Your task to perform on an android device: search for starred emails in the gmail app Image 0: 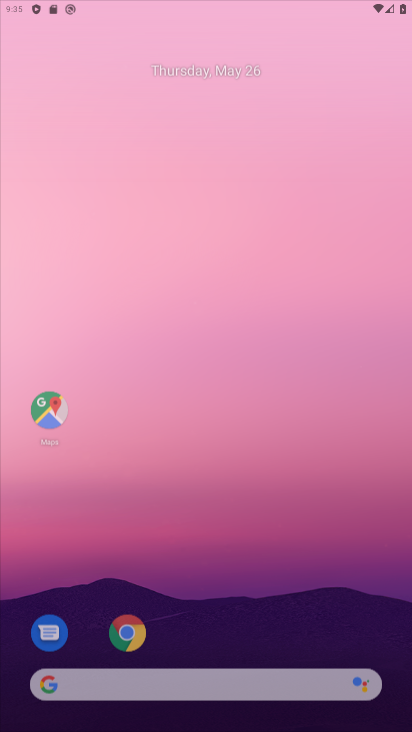
Step 0: press back button
Your task to perform on an android device: search for starred emails in the gmail app Image 1: 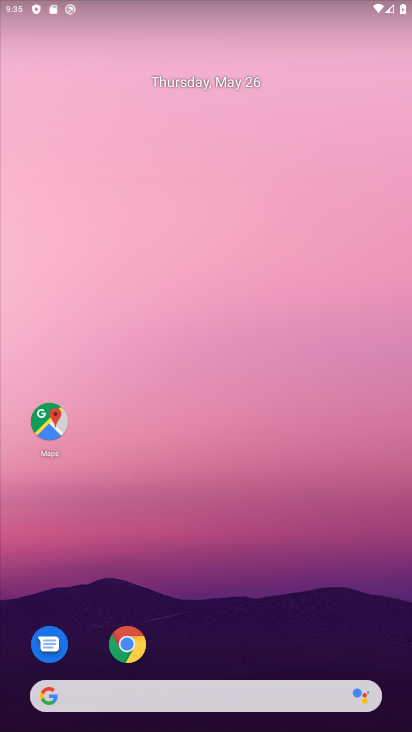
Step 1: drag from (270, 711) to (150, 206)
Your task to perform on an android device: search for starred emails in the gmail app Image 2: 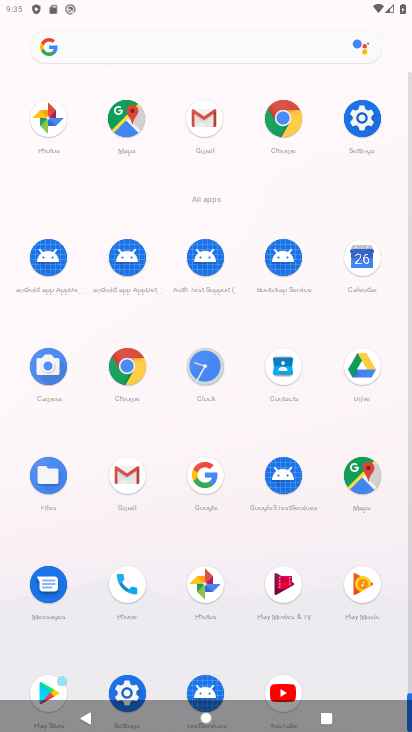
Step 2: click (130, 472)
Your task to perform on an android device: search for starred emails in the gmail app Image 3: 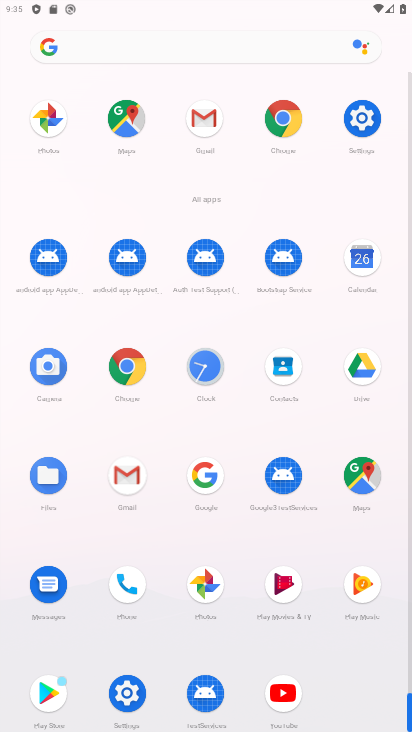
Step 3: click (130, 472)
Your task to perform on an android device: search for starred emails in the gmail app Image 4: 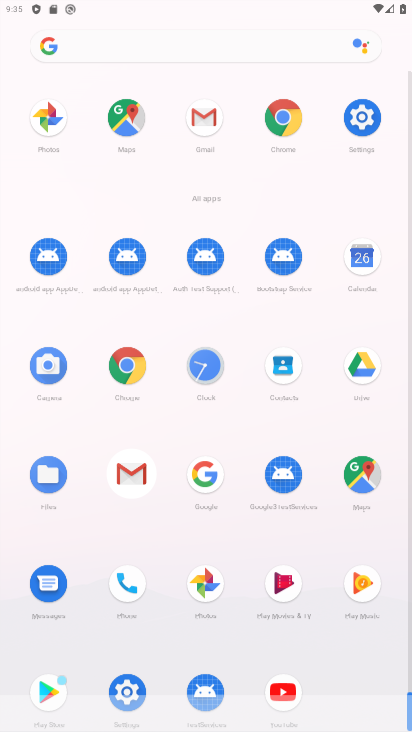
Step 4: click (130, 472)
Your task to perform on an android device: search for starred emails in the gmail app Image 5: 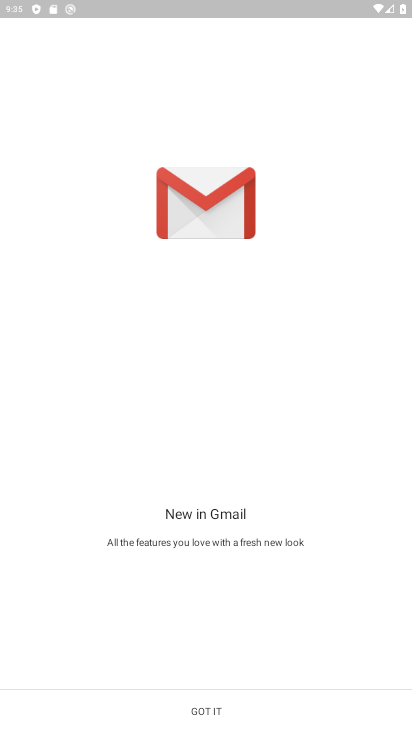
Step 5: click (209, 706)
Your task to perform on an android device: search for starred emails in the gmail app Image 6: 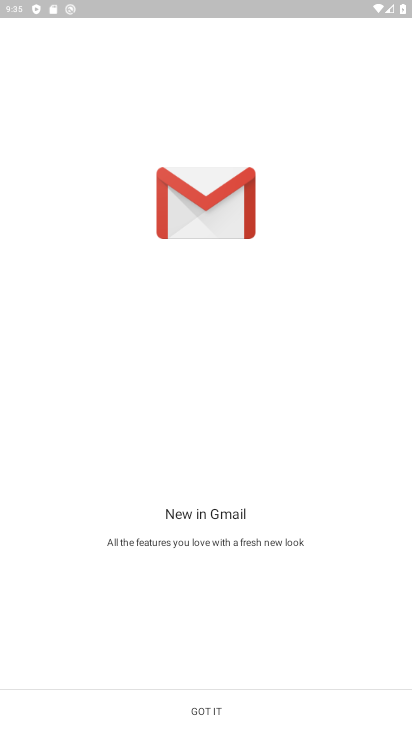
Step 6: click (212, 704)
Your task to perform on an android device: search for starred emails in the gmail app Image 7: 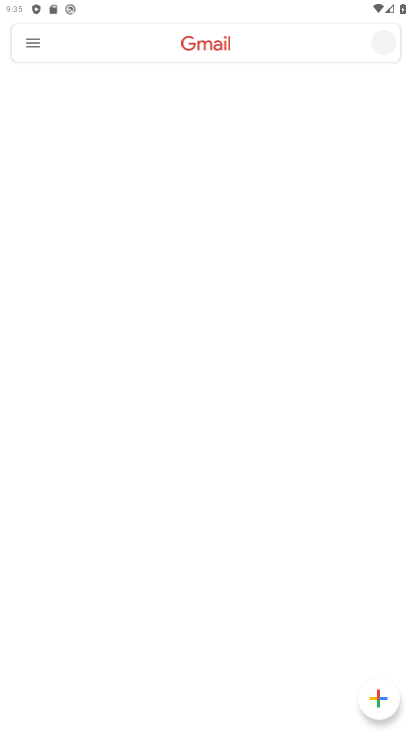
Step 7: click (213, 708)
Your task to perform on an android device: search for starred emails in the gmail app Image 8: 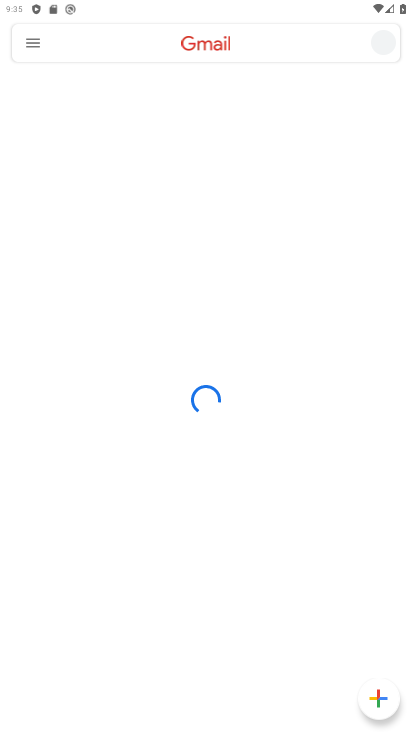
Step 8: drag from (244, 333) to (227, 11)
Your task to perform on an android device: search for starred emails in the gmail app Image 9: 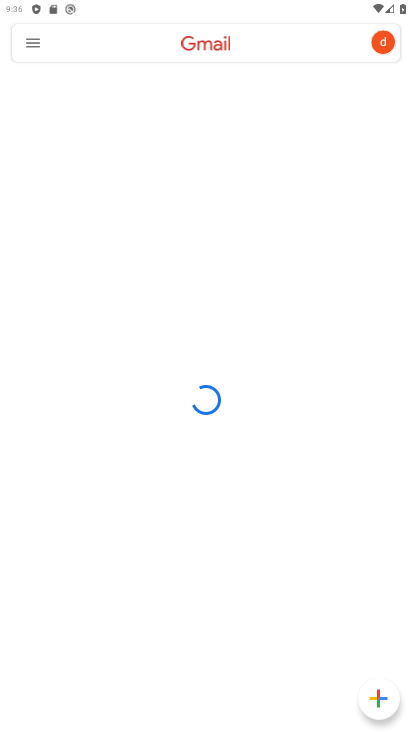
Step 9: click (233, 702)
Your task to perform on an android device: search for starred emails in the gmail app Image 10: 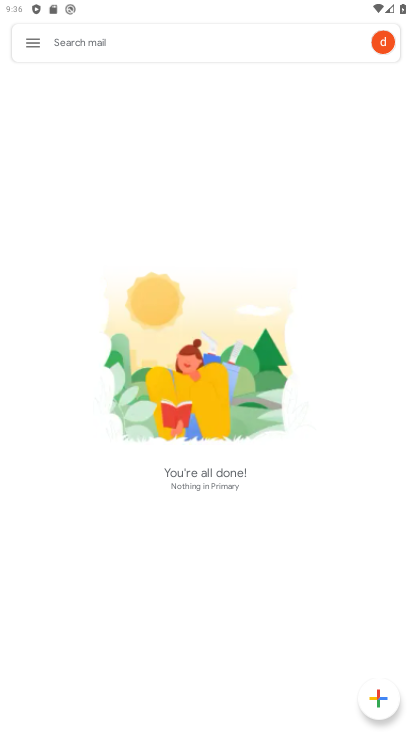
Step 10: press home button
Your task to perform on an android device: search for starred emails in the gmail app Image 11: 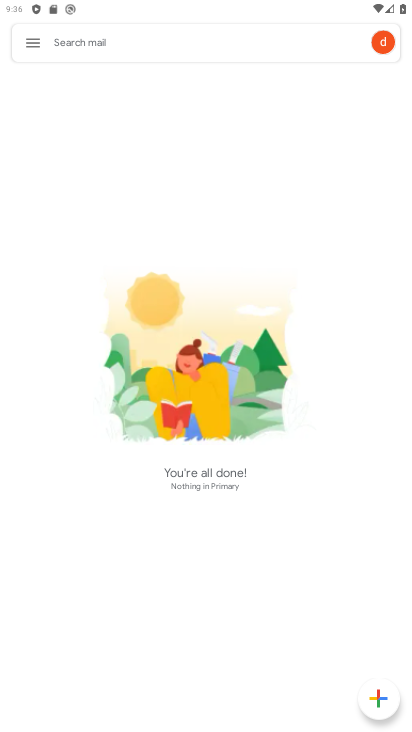
Step 11: press home button
Your task to perform on an android device: search for starred emails in the gmail app Image 12: 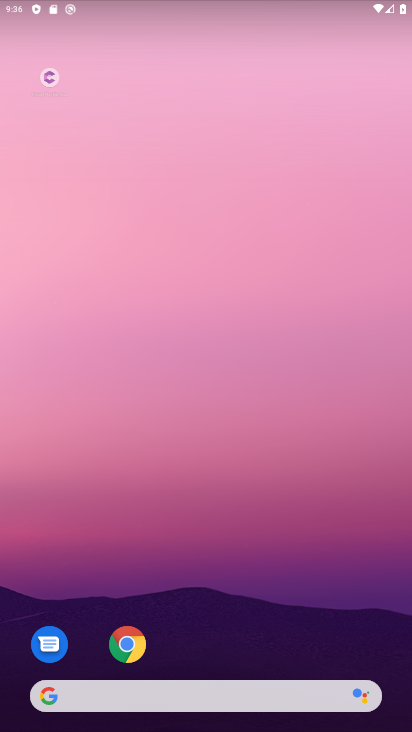
Step 12: press home button
Your task to perform on an android device: search for starred emails in the gmail app Image 13: 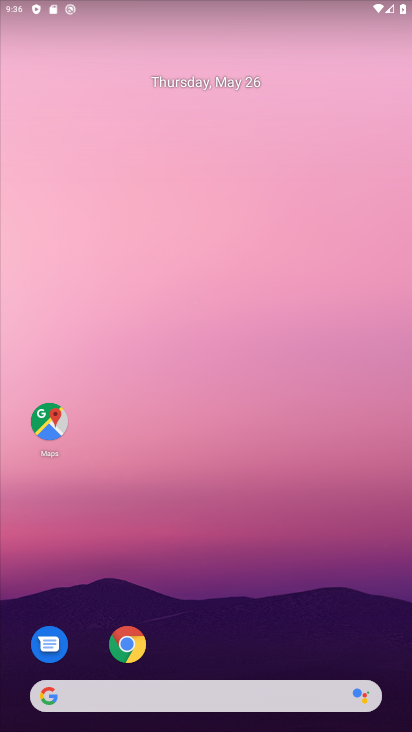
Step 13: drag from (233, 716) to (92, 115)
Your task to perform on an android device: search for starred emails in the gmail app Image 14: 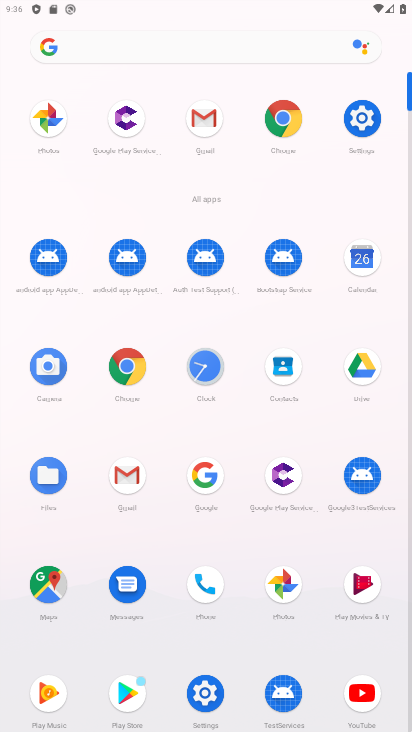
Step 14: click (148, 474)
Your task to perform on an android device: search for starred emails in the gmail app Image 15: 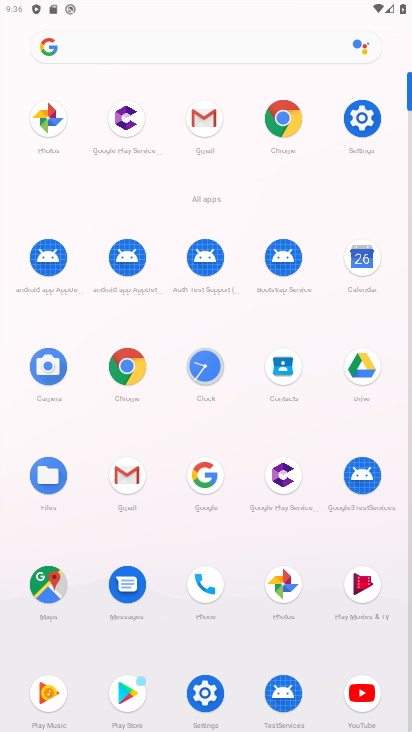
Step 15: click (134, 470)
Your task to perform on an android device: search for starred emails in the gmail app Image 16: 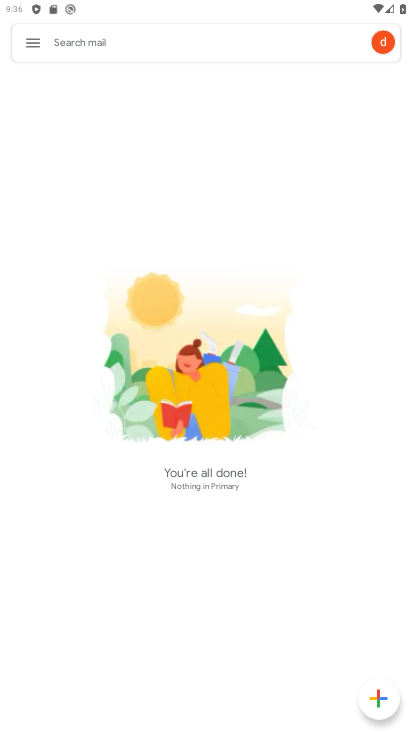
Step 16: click (129, 476)
Your task to perform on an android device: search for starred emails in the gmail app Image 17: 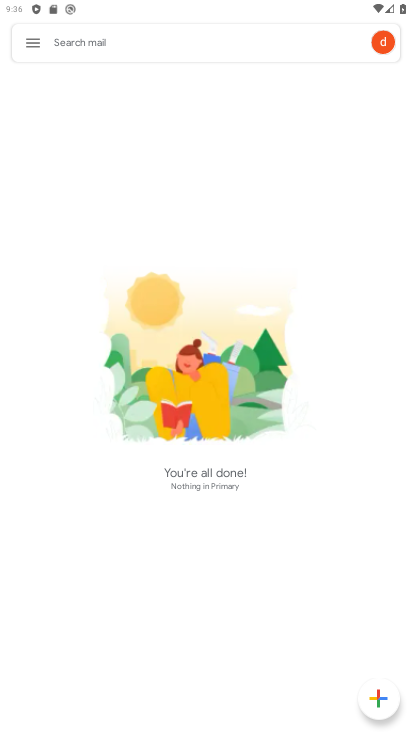
Step 17: click (129, 476)
Your task to perform on an android device: search for starred emails in the gmail app Image 18: 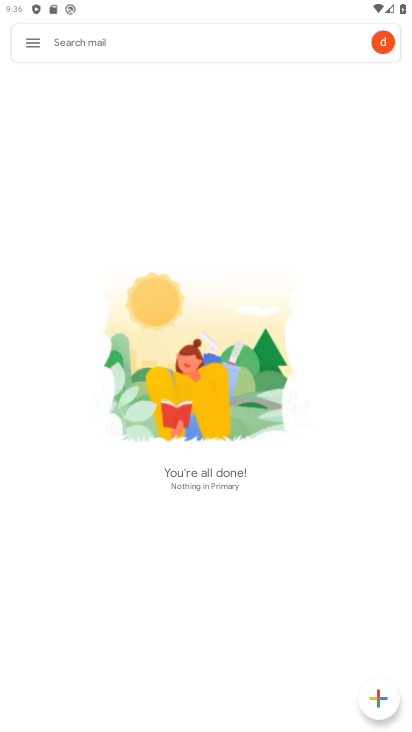
Step 18: click (129, 476)
Your task to perform on an android device: search for starred emails in the gmail app Image 19: 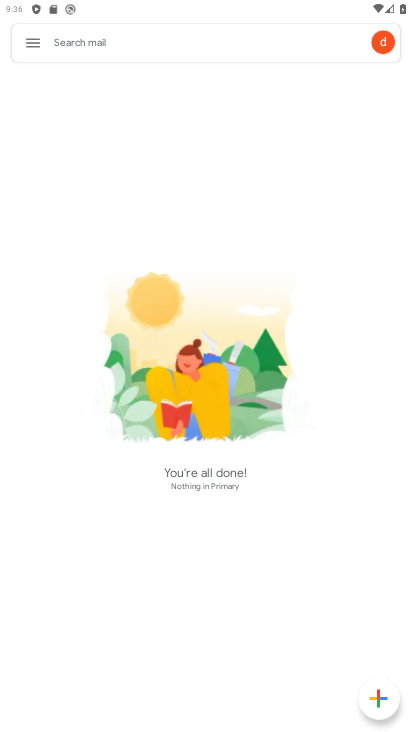
Step 19: click (27, 51)
Your task to perform on an android device: search for starred emails in the gmail app Image 20: 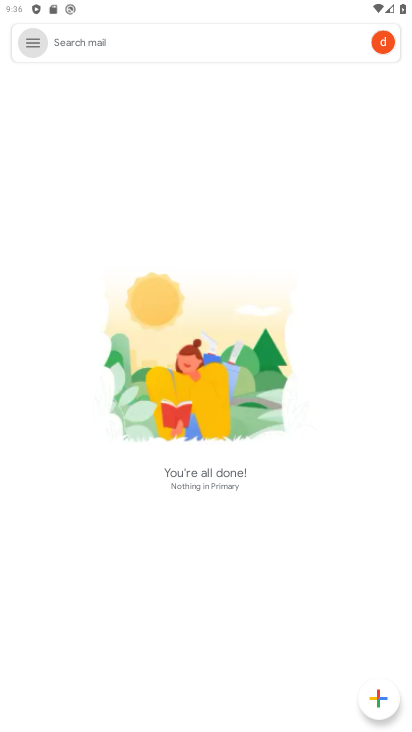
Step 20: click (27, 51)
Your task to perform on an android device: search for starred emails in the gmail app Image 21: 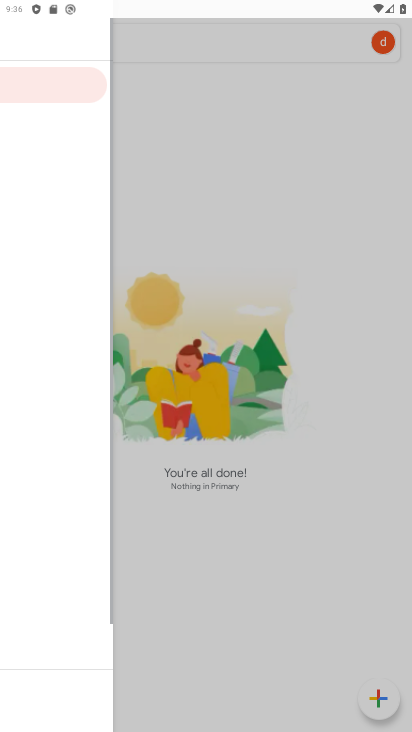
Step 21: click (27, 51)
Your task to perform on an android device: search for starred emails in the gmail app Image 22: 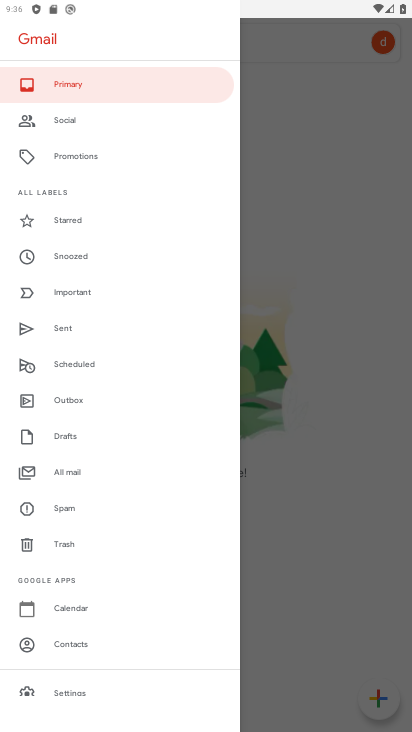
Step 22: click (60, 218)
Your task to perform on an android device: search for starred emails in the gmail app Image 23: 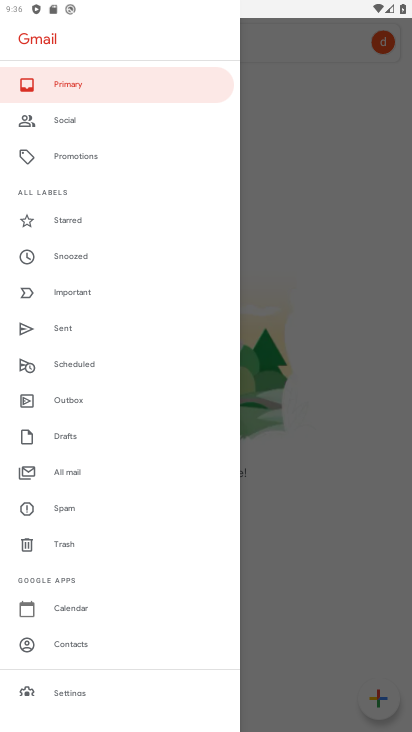
Step 23: click (60, 218)
Your task to perform on an android device: search for starred emails in the gmail app Image 24: 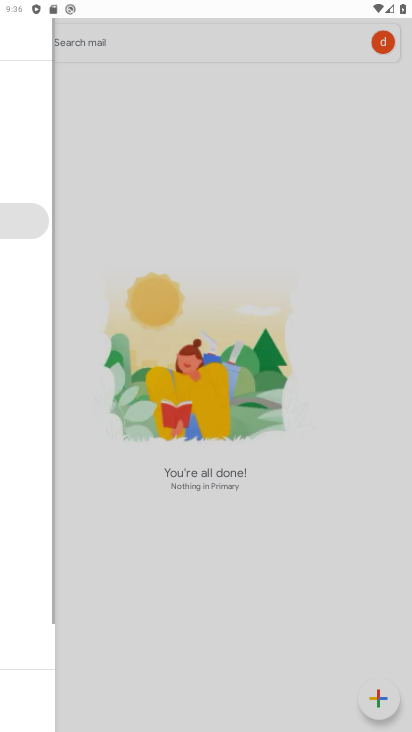
Step 24: click (59, 218)
Your task to perform on an android device: search for starred emails in the gmail app Image 25: 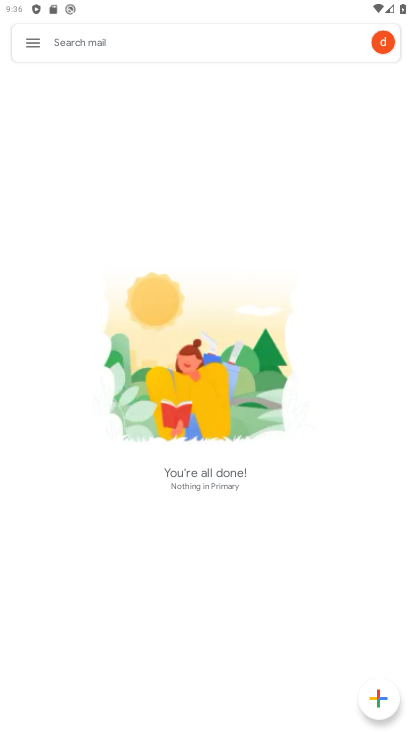
Step 25: click (59, 218)
Your task to perform on an android device: search for starred emails in the gmail app Image 26: 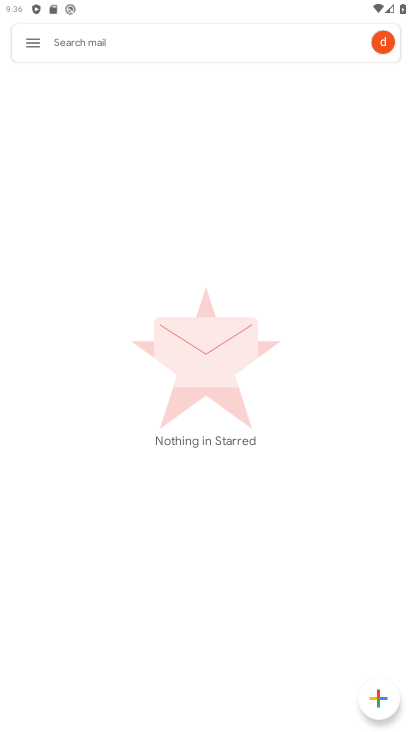
Step 26: task complete